Your task to perform on an android device: Go to Maps Image 0: 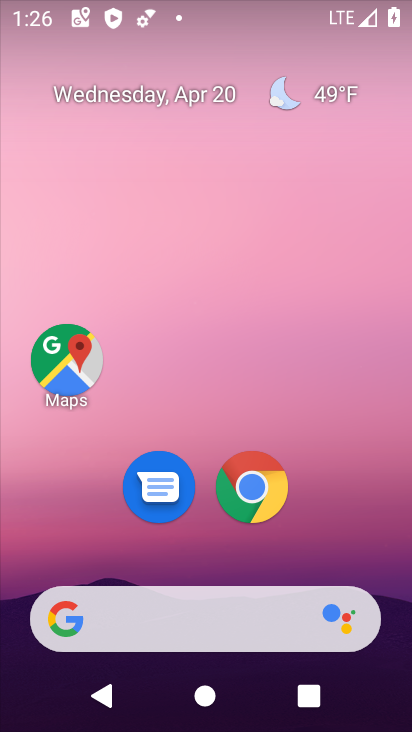
Step 0: click (55, 346)
Your task to perform on an android device: Go to Maps Image 1: 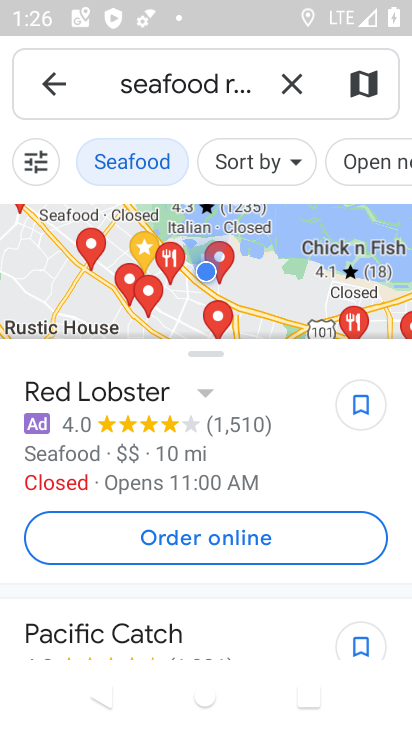
Step 1: task complete